Your task to perform on an android device: Toggle the flashlight Image 0: 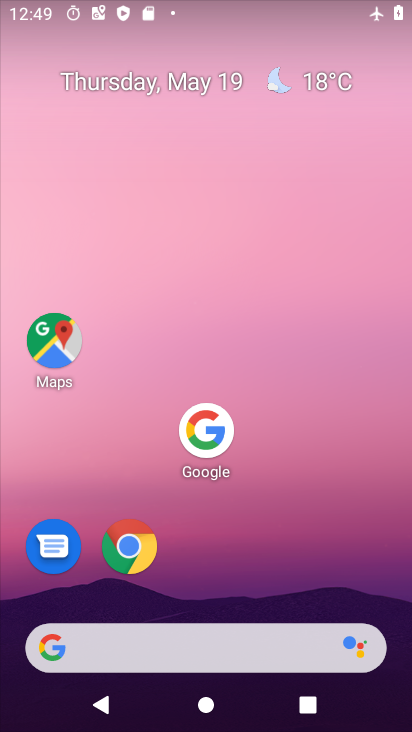
Step 0: drag from (236, 551) to (197, 9)
Your task to perform on an android device: Toggle the flashlight Image 1: 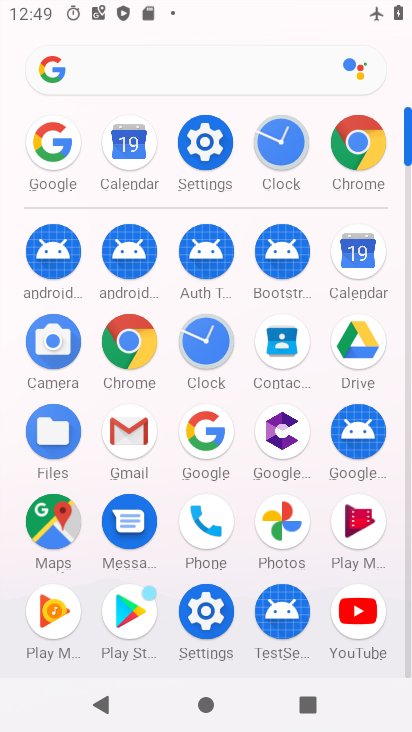
Step 1: click (204, 138)
Your task to perform on an android device: Toggle the flashlight Image 2: 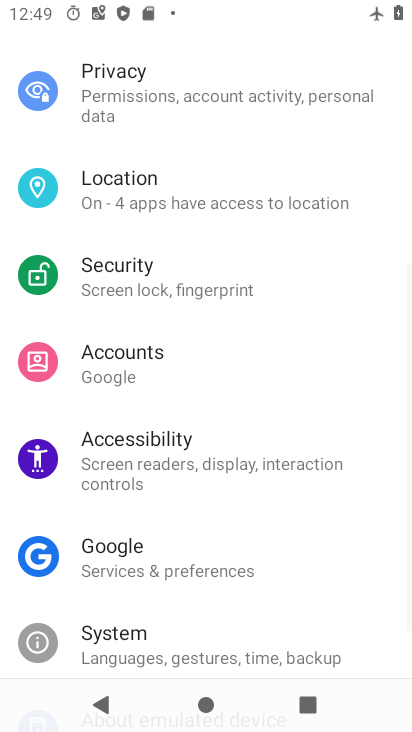
Step 2: drag from (207, 122) to (228, 642)
Your task to perform on an android device: Toggle the flashlight Image 3: 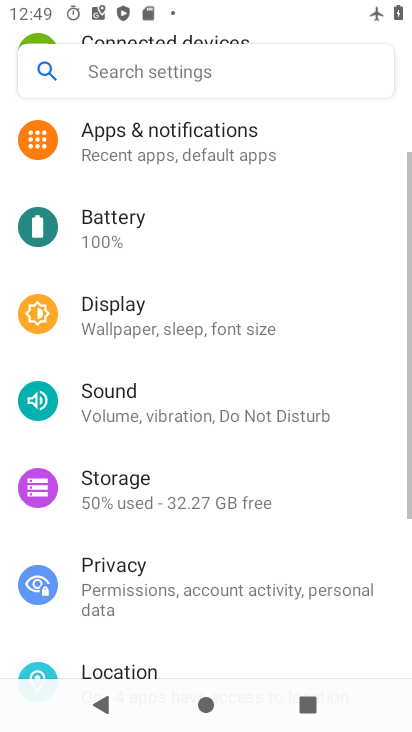
Step 3: click (212, 76)
Your task to perform on an android device: Toggle the flashlight Image 4: 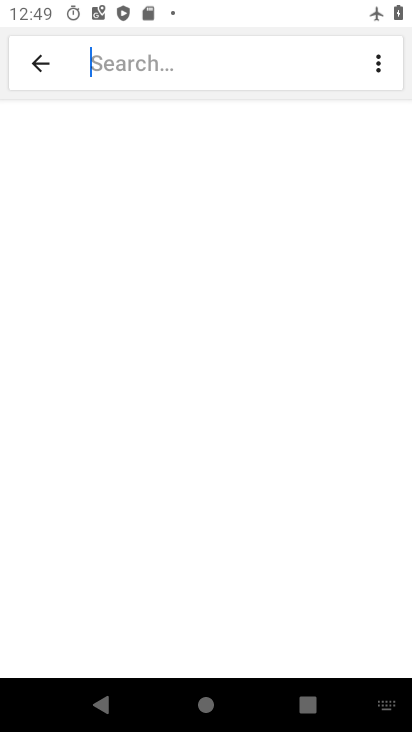
Step 4: type "flash"
Your task to perform on an android device: Toggle the flashlight Image 5: 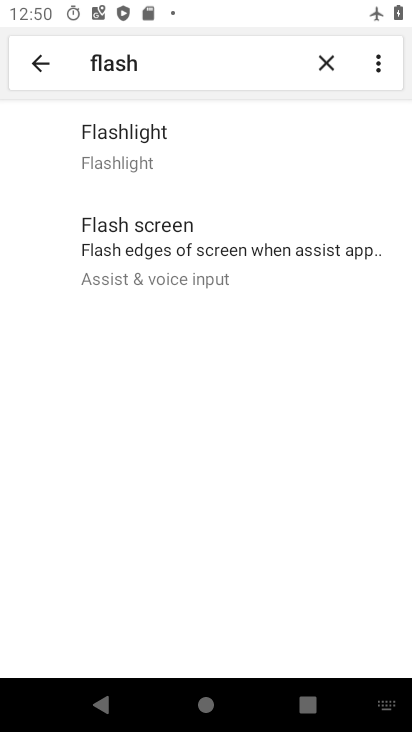
Step 5: task complete